Your task to perform on an android device: Open Youtube and go to "Your channel" Image 0: 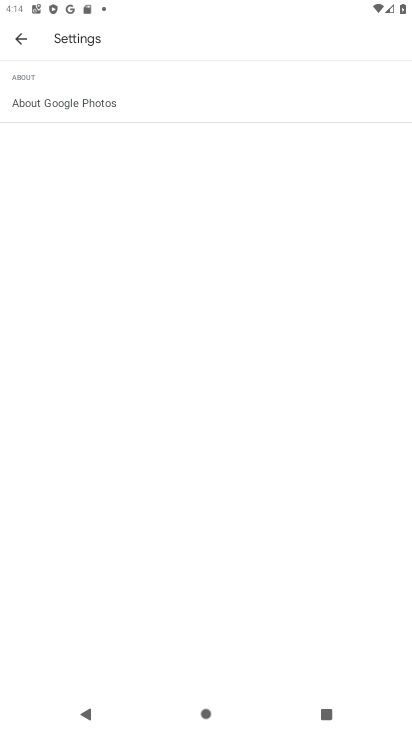
Step 0: press home button
Your task to perform on an android device: Open Youtube and go to "Your channel" Image 1: 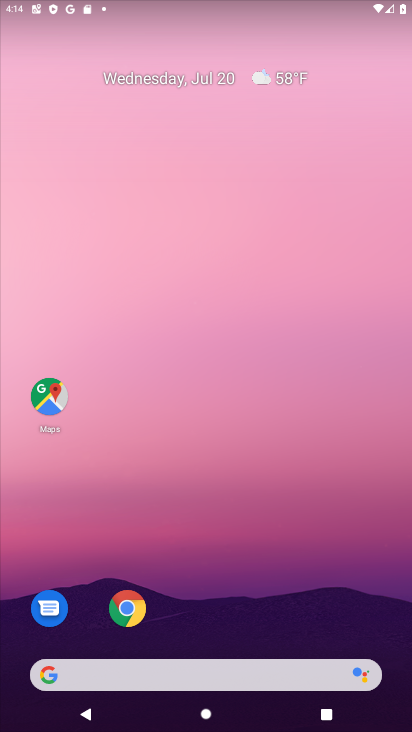
Step 1: drag from (205, 634) to (209, 9)
Your task to perform on an android device: Open Youtube and go to "Your channel" Image 2: 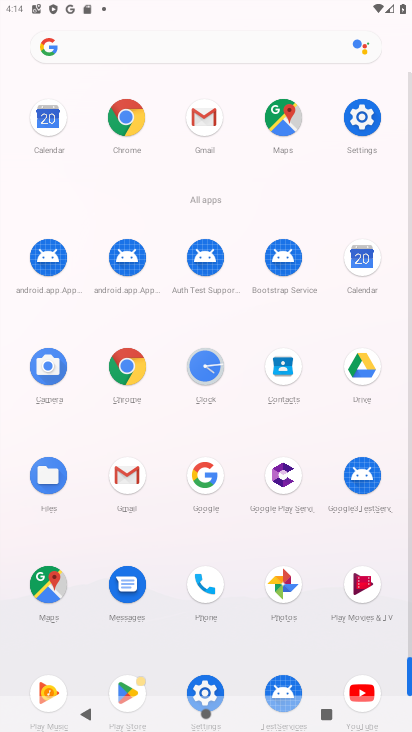
Step 2: click (367, 683)
Your task to perform on an android device: Open Youtube and go to "Your channel" Image 3: 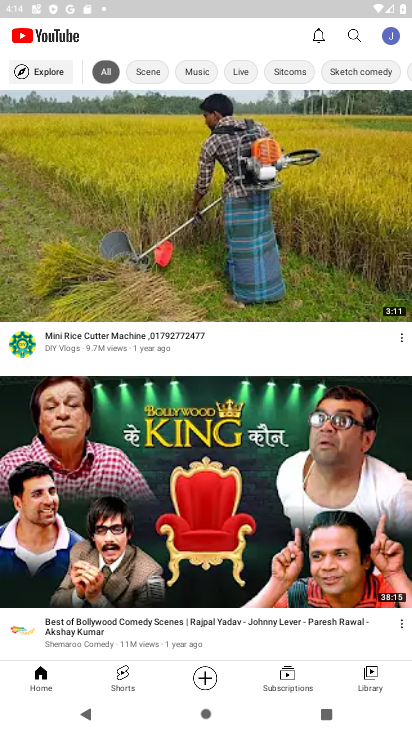
Step 3: click (387, 33)
Your task to perform on an android device: Open Youtube and go to "Your channel" Image 4: 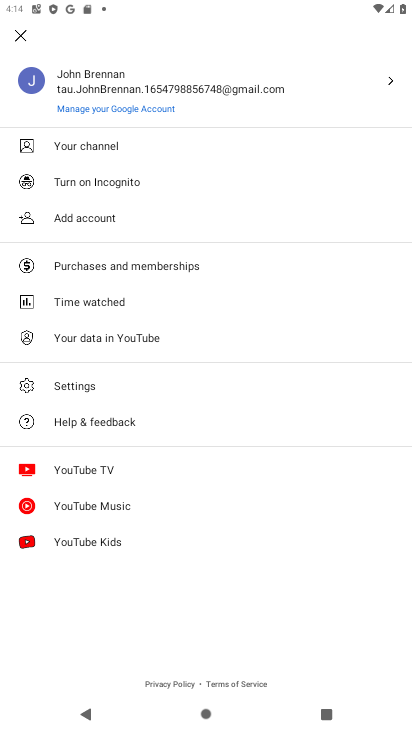
Step 4: click (102, 149)
Your task to perform on an android device: Open Youtube and go to "Your channel" Image 5: 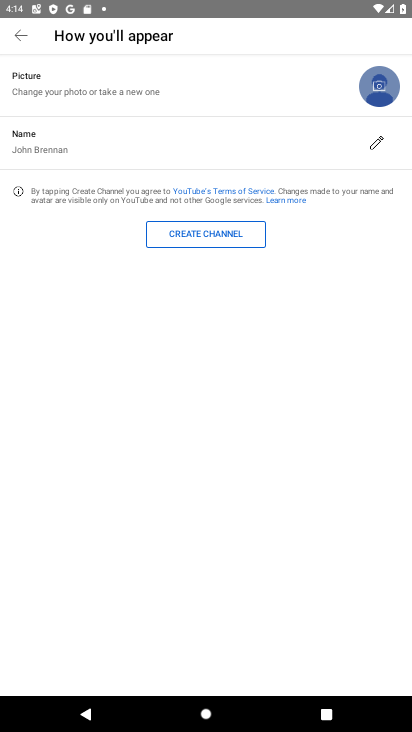
Step 5: task complete